Your task to perform on an android device: allow notifications from all sites in the chrome app Image 0: 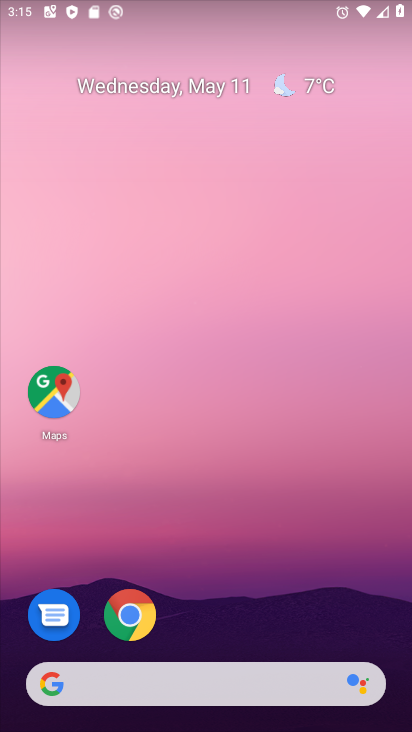
Step 0: drag from (247, 568) to (304, 158)
Your task to perform on an android device: allow notifications from all sites in the chrome app Image 1: 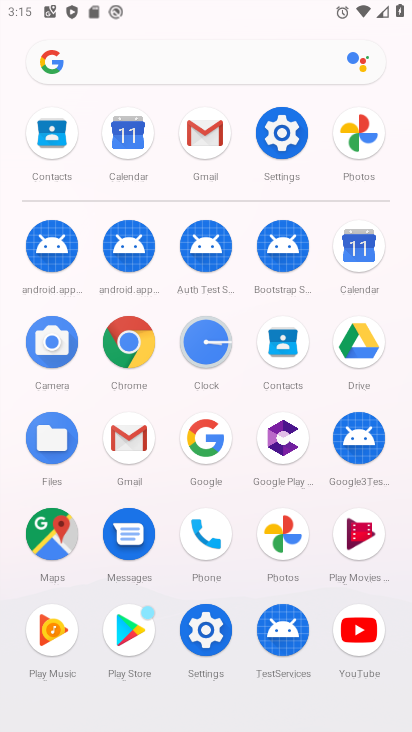
Step 1: click (136, 335)
Your task to perform on an android device: allow notifications from all sites in the chrome app Image 2: 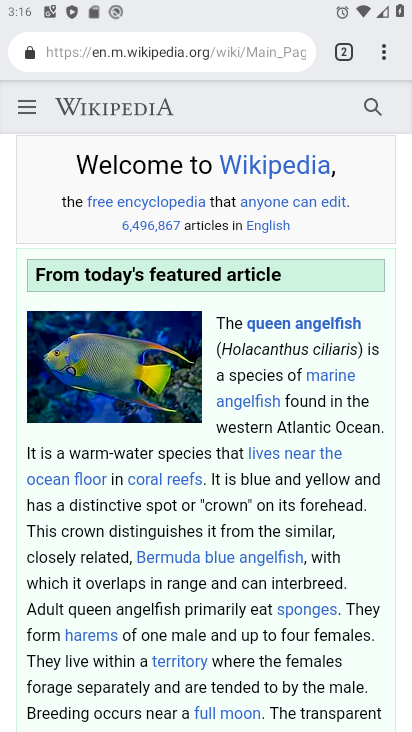
Step 2: drag from (388, 46) to (182, 639)
Your task to perform on an android device: allow notifications from all sites in the chrome app Image 3: 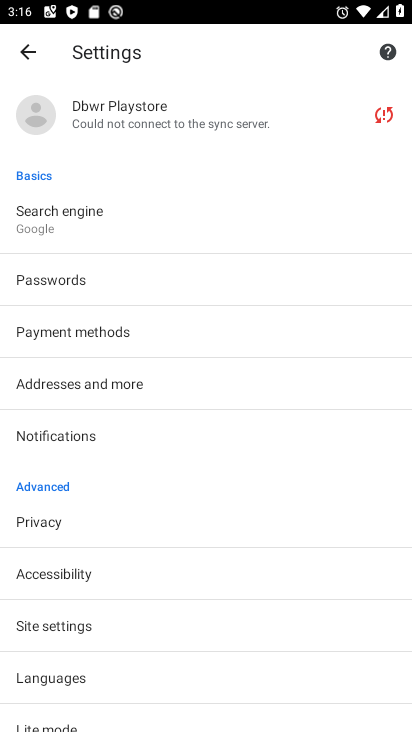
Step 3: click (94, 439)
Your task to perform on an android device: allow notifications from all sites in the chrome app Image 4: 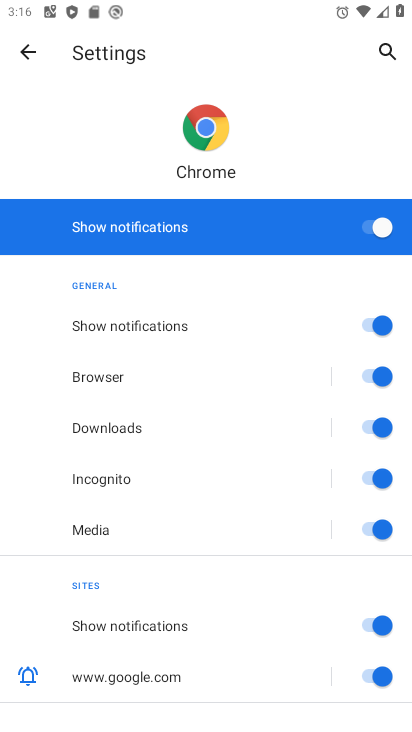
Step 4: task complete